Your task to perform on an android device: toggle location history Image 0: 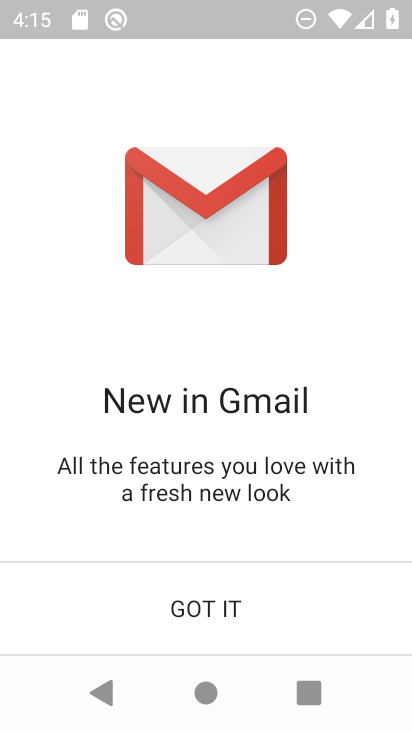
Step 0: press home button
Your task to perform on an android device: toggle location history Image 1: 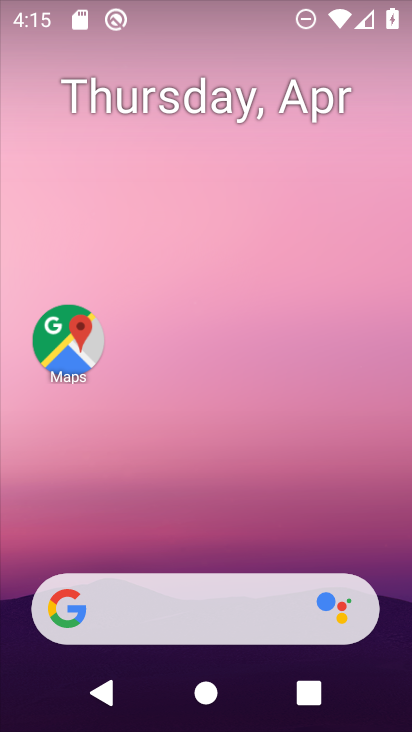
Step 1: drag from (225, 671) to (211, 142)
Your task to perform on an android device: toggle location history Image 2: 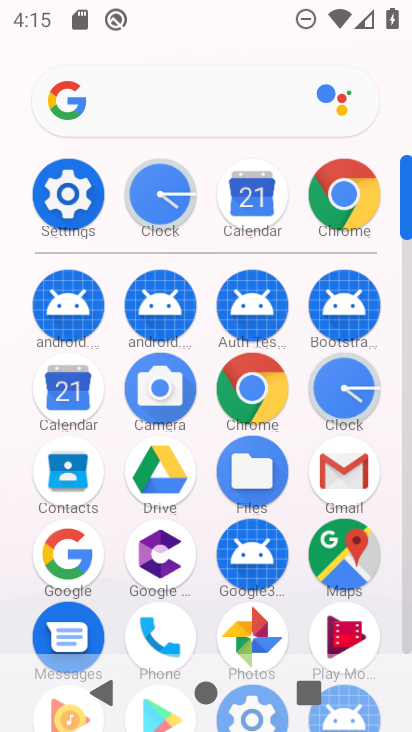
Step 2: click (69, 195)
Your task to perform on an android device: toggle location history Image 3: 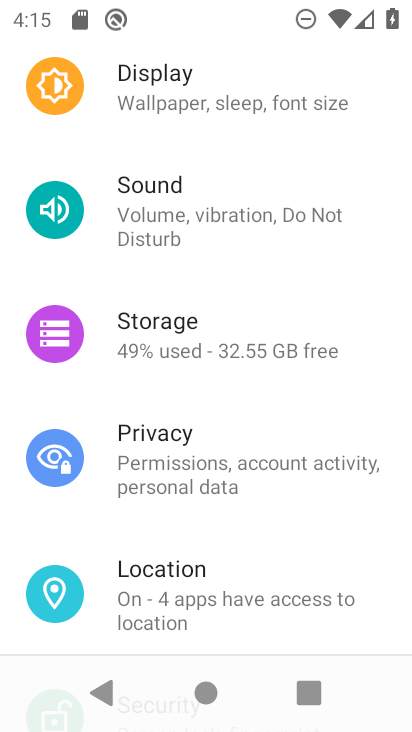
Step 3: click (185, 591)
Your task to perform on an android device: toggle location history Image 4: 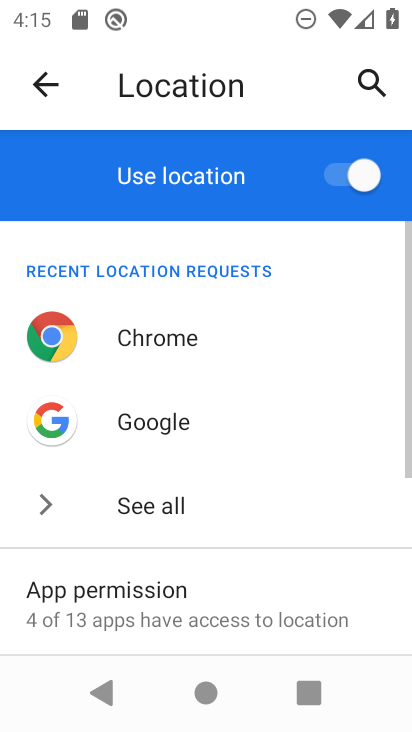
Step 4: drag from (205, 642) to (209, 241)
Your task to perform on an android device: toggle location history Image 5: 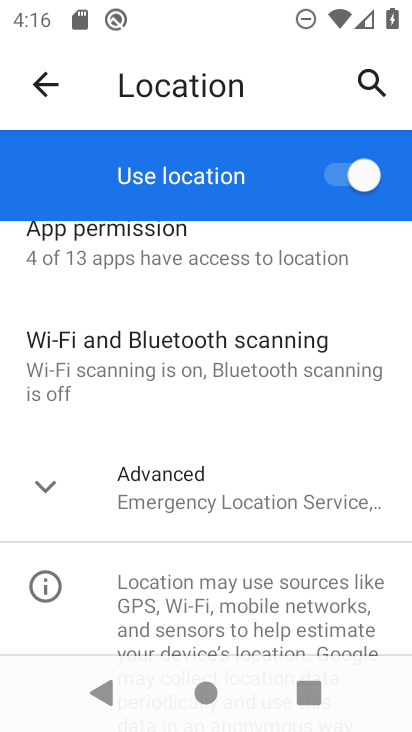
Step 5: click (169, 484)
Your task to perform on an android device: toggle location history Image 6: 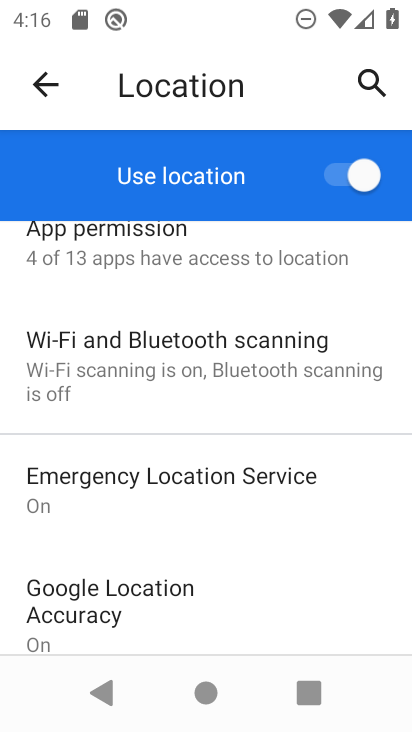
Step 6: drag from (214, 626) to (214, 336)
Your task to perform on an android device: toggle location history Image 7: 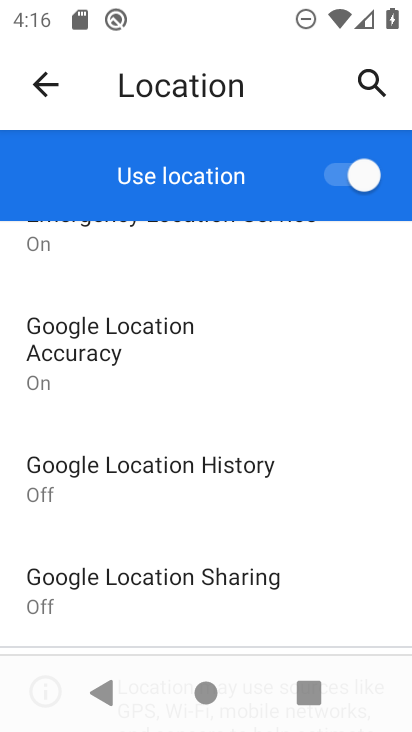
Step 7: click (162, 464)
Your task to perform on an android device: toggle location history Image 8: 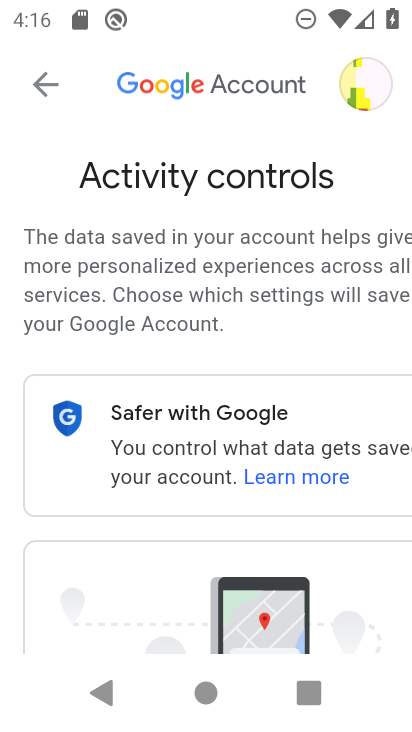
Step 8: drag from (184, 607) to (194, 337)
Your task to perform on an android device: toggle location history Image 9: 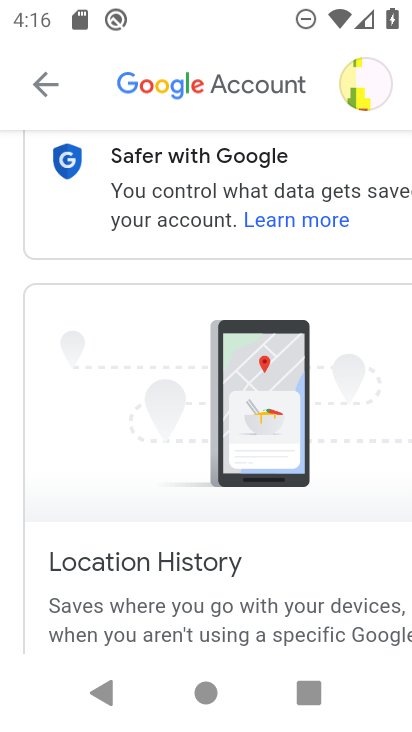
Step 9: drag from (214, 596) to (249, 190)
Your task to perform on an android device: toggle location history Image 10: 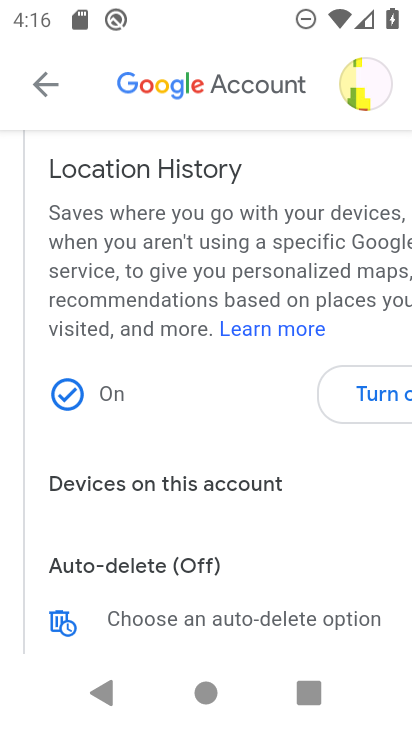
Step 10: click (371, 391)
Your task to perform on an android device: toggle location history Image 11: 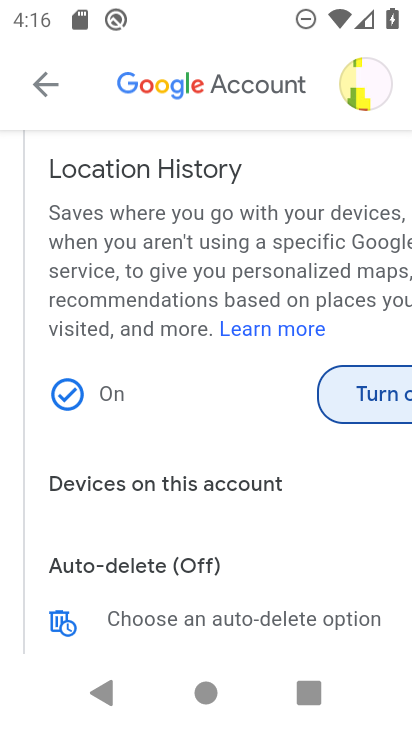
Step 11: click (370, 399)
Your task to perform on an android device: toggle location history Image 12: 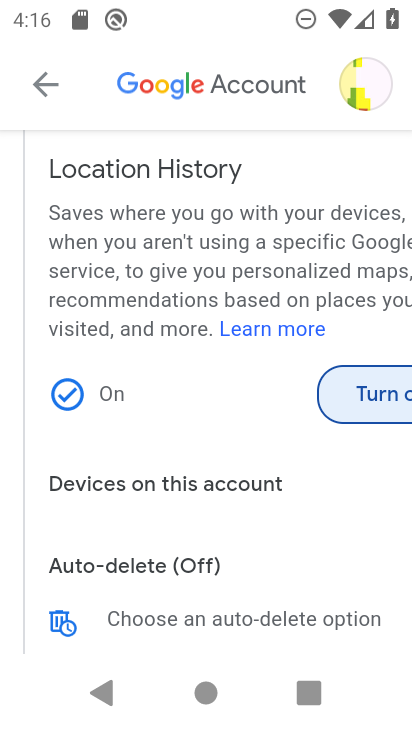
Step 12: drag from (251, 559) to (258, 371)
Your task to perform on an android device: toggle location history Image 13: 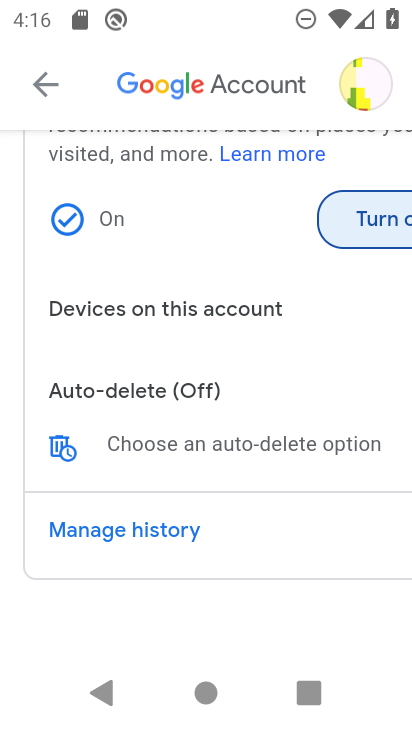
Step 13: click (347, 222)
Your task to perform on an android device: toggle location history Image 14: 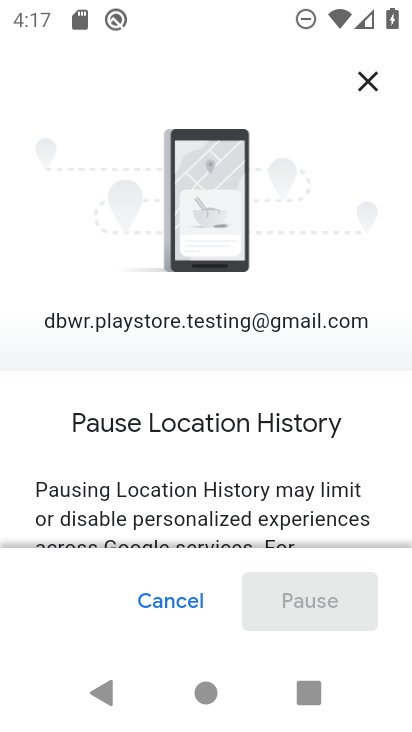
Step 14: drag from (174, 488) to (174, 240)
Your task to perform on an android device: toggle location history Image 15: 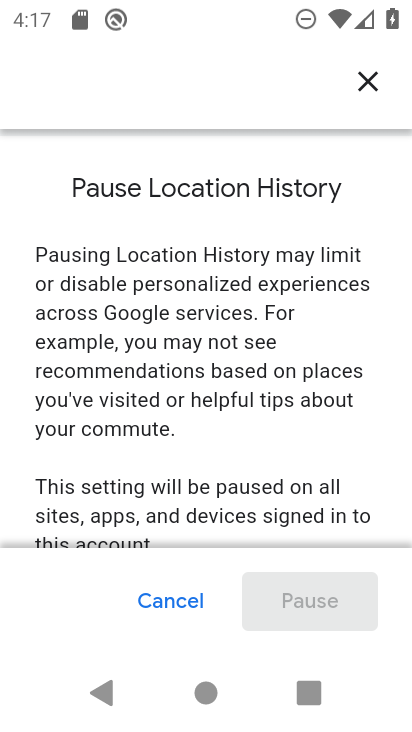
Step 15: drag from (242, 505) to (239, 213)
Your task to perform on an android device: toggle location history Image 16: 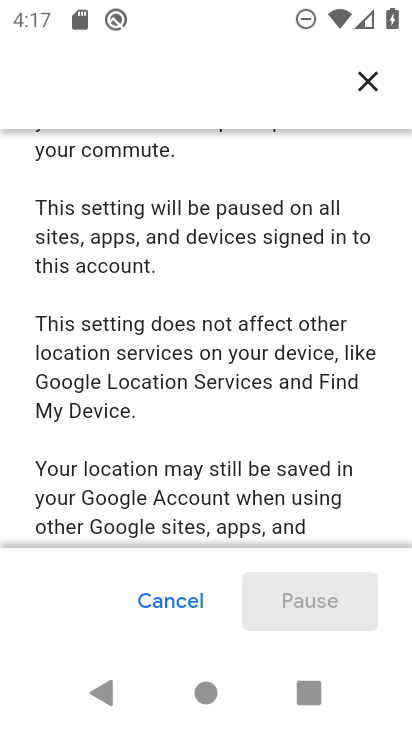
Step 16: drag from (244, 489) to (248, 290)
Your task to perform on an android device: toggle location history Image 17: 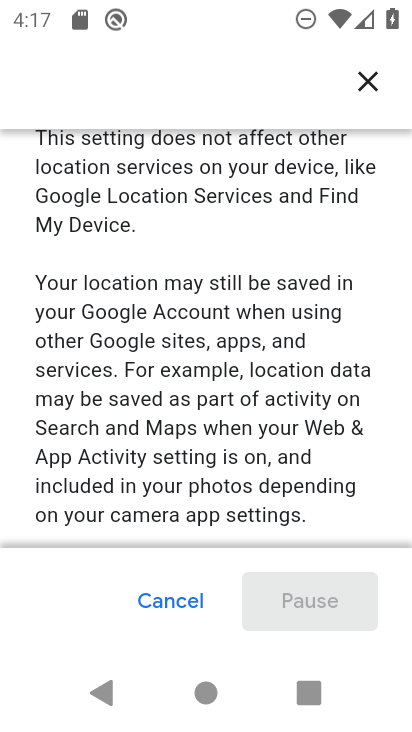
Step 17: drag from (276, 499) to (274, 279)
Your task to perform on an android device: toggle location history Image 18: 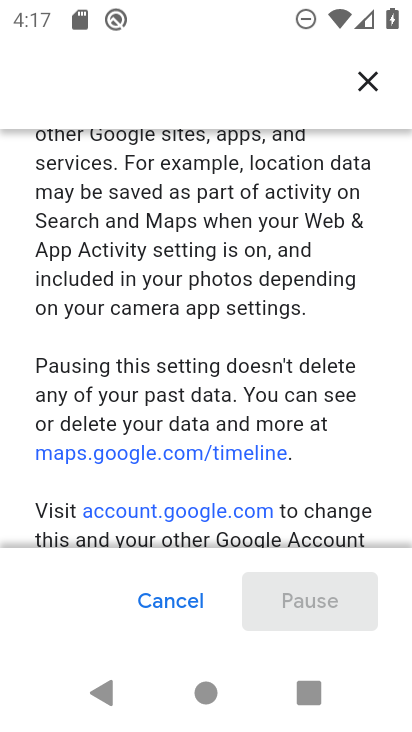
Step 18: drag from (291, 515) to (294, 270)
Your task to perform on an android device: toggle location history Image 19: 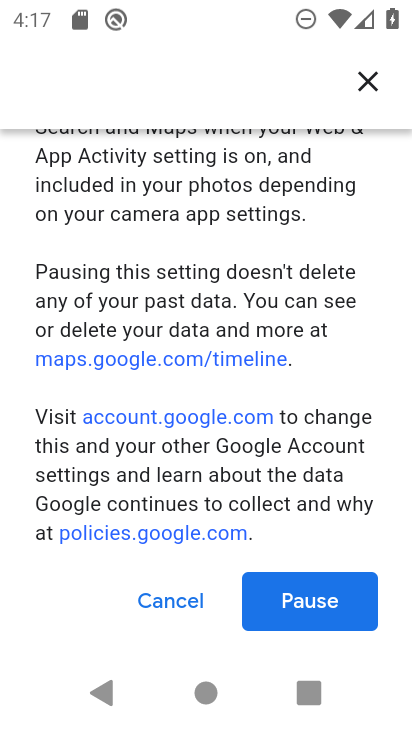
Step 19: click (277, 591)
Your task to perform on an android device: toggle location history Image 20: 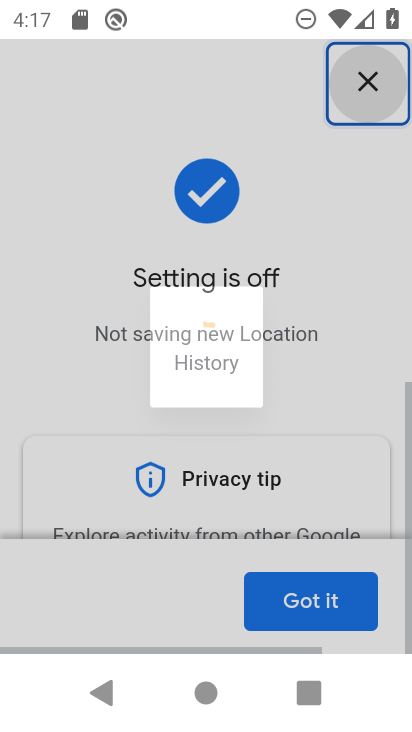
Step 20: click (302, 604)
Your task to perform on an android device: toggle location history Image 21: 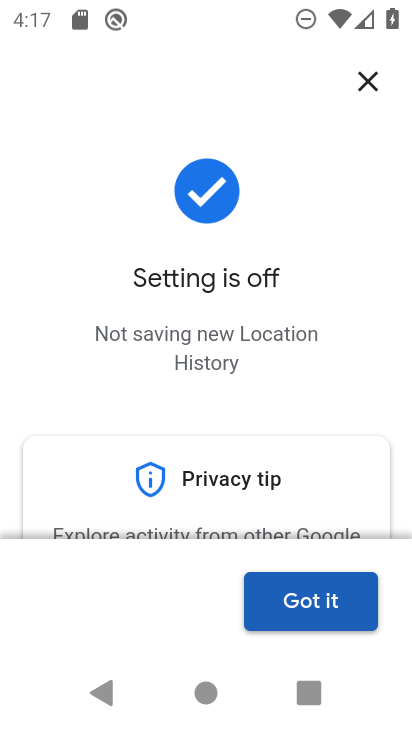
Step 21: task complete